Your task to perform on an android device: turn on improve location accuracy Image 0: 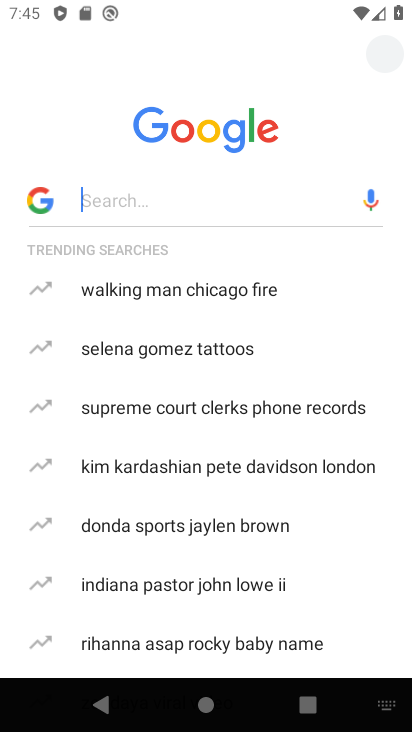
Step 0: press home button
Your task to perform on an android device: turn on improve location accuracy Image 1: 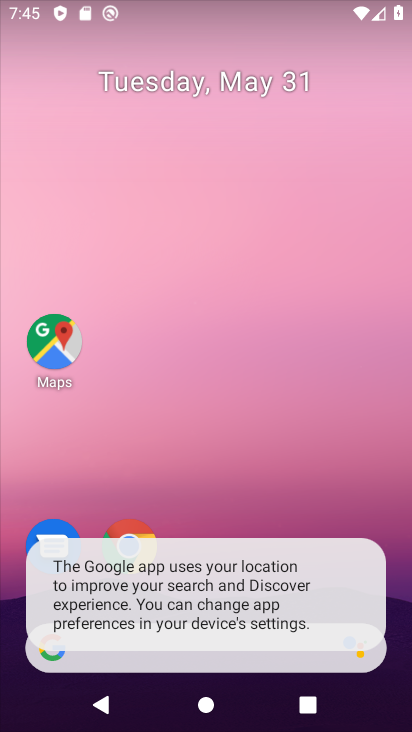
Step 1: drag from (279, 465) to (294, 23)
Your task to perform on an android device: turn on improve location accuracy Image 2: 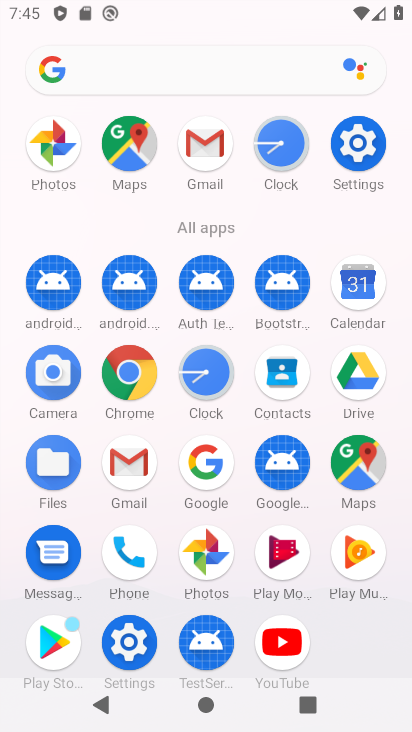
Step 2: click (358, 140)
Your task to perform on an android device: turn on improve location accuracy Image 3: 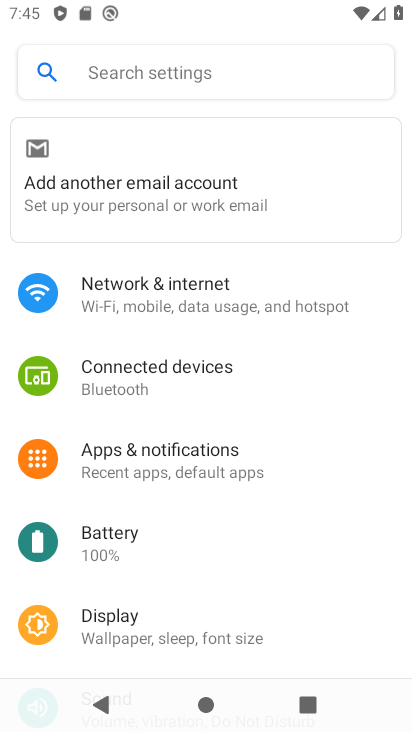
Step 3: drag from (228, 594) to (279, 93)
Your task to perform on an android device: turn on improve location accuracy Image 4: 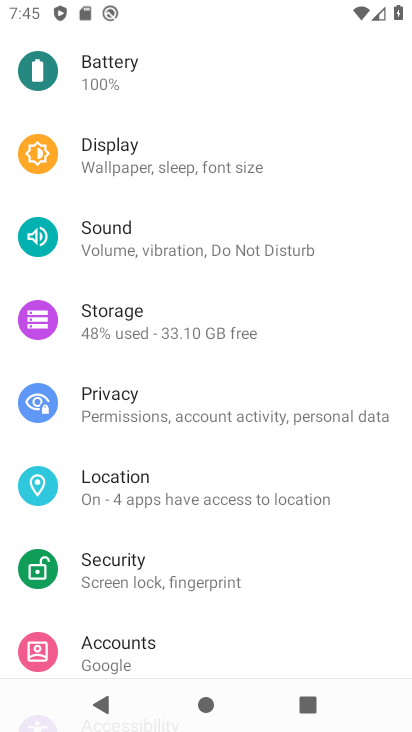
Step 4: click (143, 467)
Your task to perform on an android device: turn on improve location accuracy Image 5: 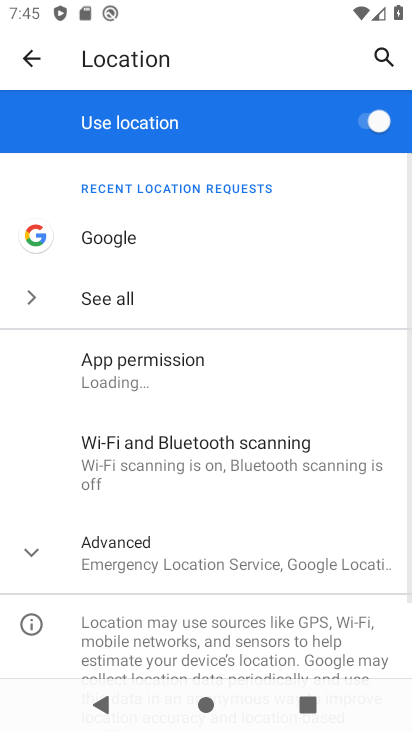
Step 5: click (128, 567)
Your task to perform on an android device: turn on improve location accuracy Image 6: 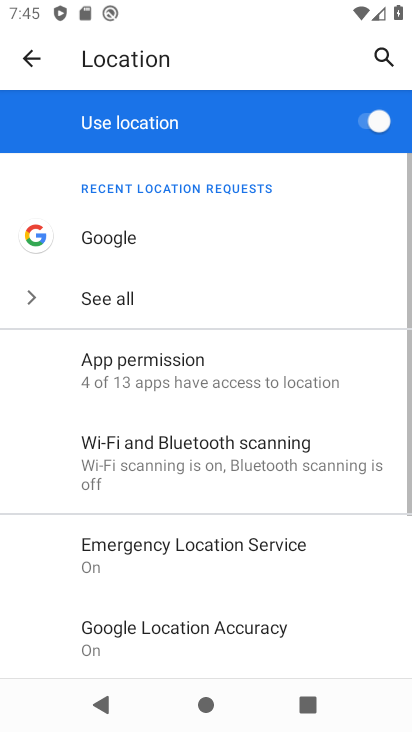
Step 6: click (218, 637)
Your task to perform on an android device: turn on improve location accuracy Image 7: 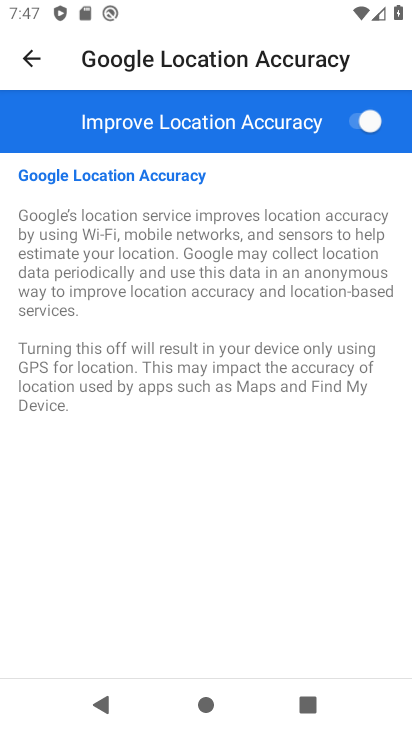
Step 7: task complete